Your task to perform on an android device: What's the weather? Image 0: 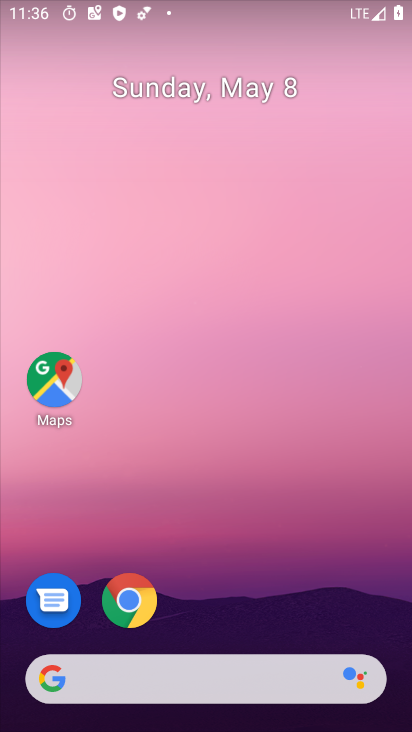
Step 0: drag from (297, 606) to (355, 285)
Your task to perform on an android device: What's the weather? Image 1: 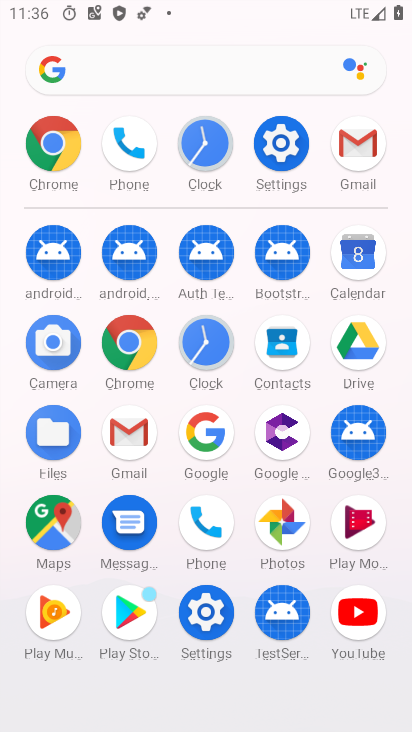
Step 1: click (211, 445)
Your task to perform on an android device: What's the weather? Image 2: 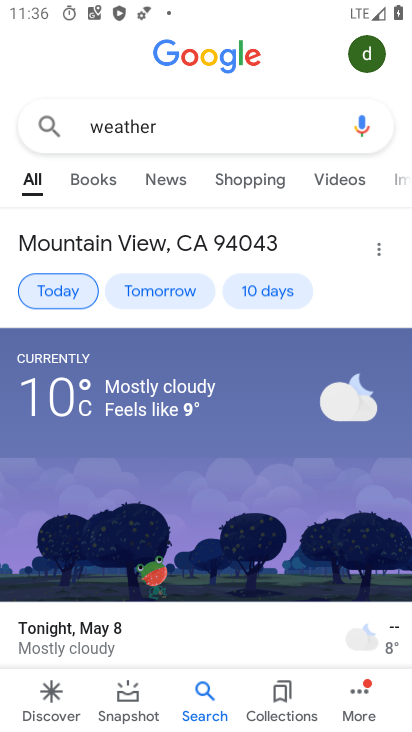
Step 2: drag from (238, 523) to (264, 309)
Your task to perform on an android device: What's the weather? Image 3: 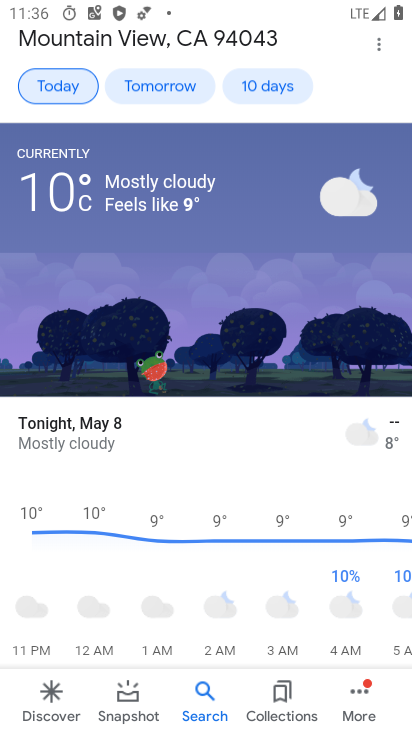
Step 3: click (264, 305)
Your task to perform on an android device: What's the weather? Image 4: 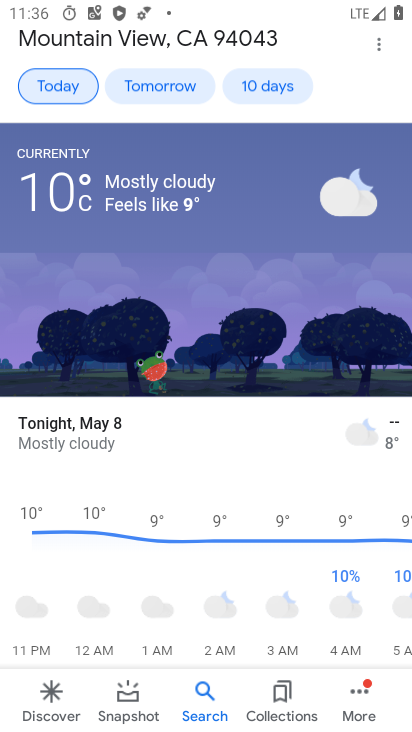
Step 4: task complete